Your task to perform on an android device: Clear the cart on amazon. Search for "asus rog" on amazon, select the first entry, and add it to the cart. Image 0: 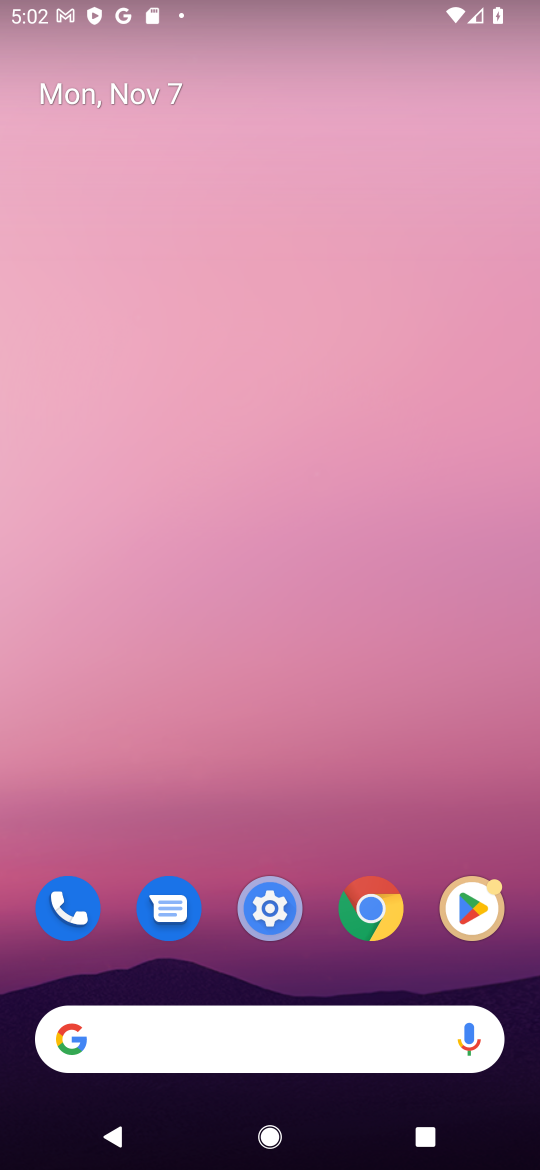
Step 0: click (379, 1038)
Your task to perform on an android device: Clear the cart on amazon. Search for "asus rog" on amazon, select the first entry, and add it to the cart. Image 1: 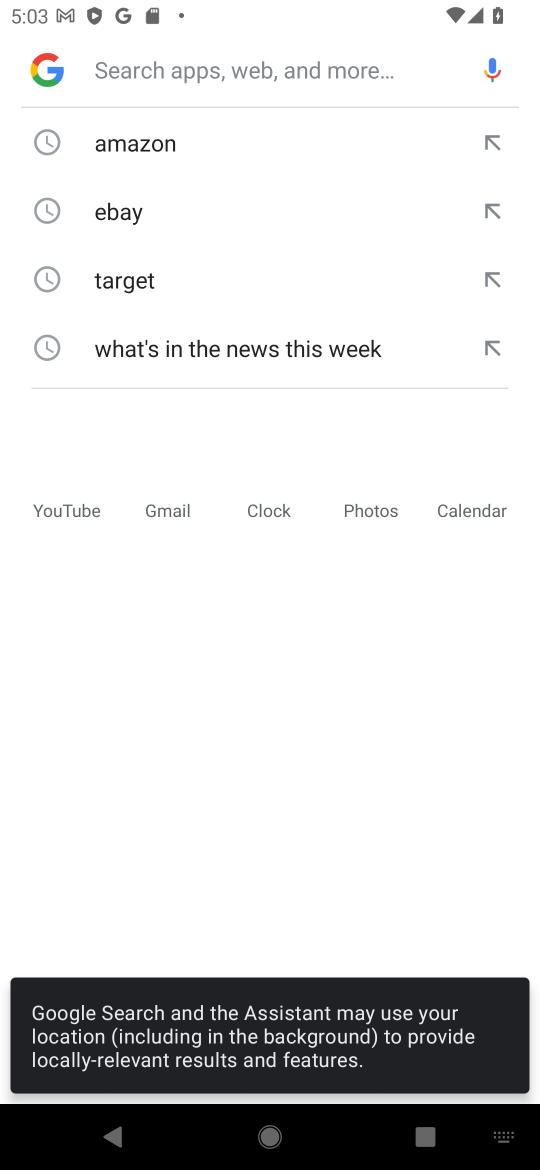
Step 1: click (196, 154)
Your task to perform on an android device: Clear the cart on amazon. Search for "asus rog" on amazon, select the first entry, and add it to the cart. Image 2: 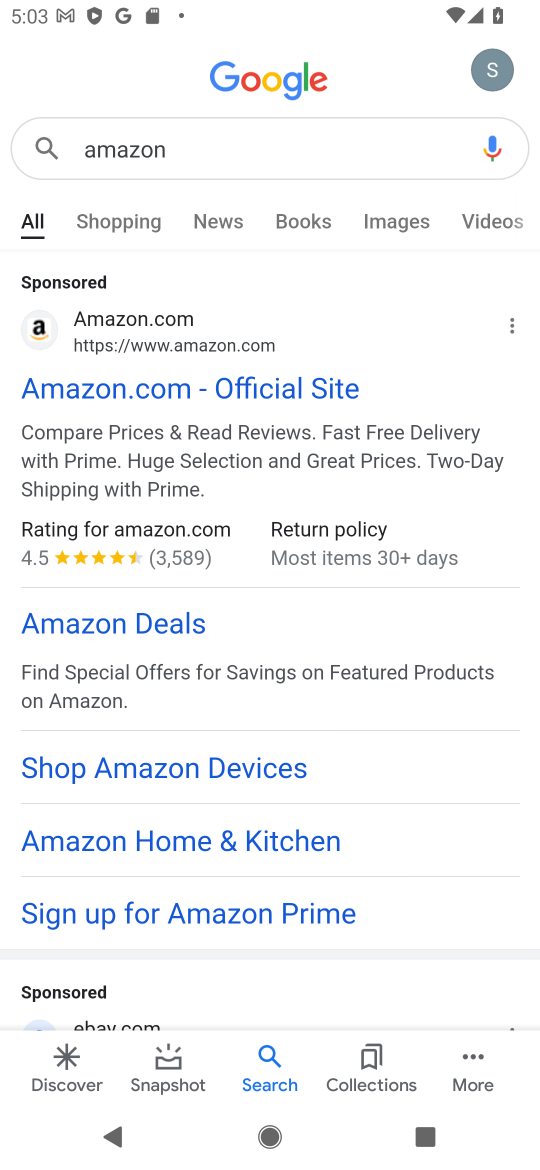
Step 2: click (235, 414)
Your task to perform on an android device: Clear the cart on amazon. Search for "asus rog" on amazon, select the first entry, and add it to the cart. Image 3: 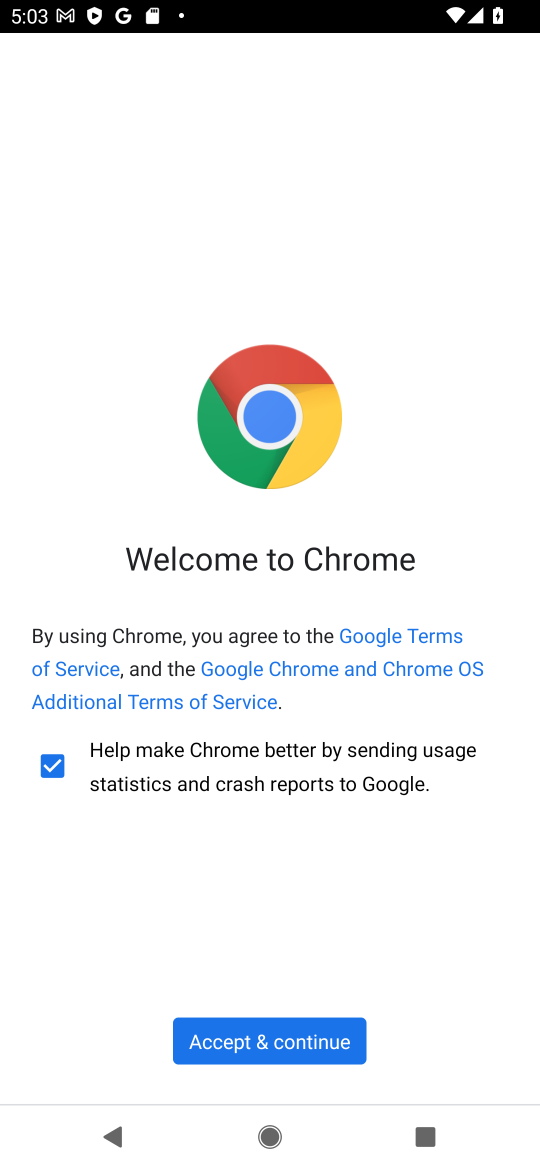
Step 3: click (252, 1049)
Your task to perform on an android device: Clear the cart on amazon. Search for "asus rog" on amazon, select the first entry, and add it to the cart. Image 4: 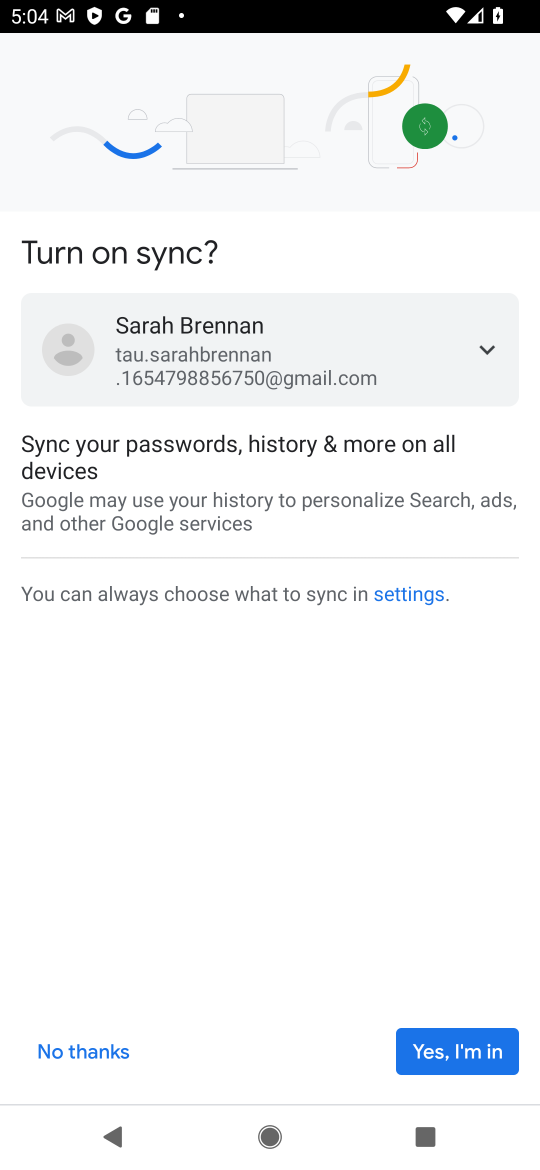
Step 4: click (430, 1052)
Your task to perform on an android device: Clear the cart on amazon. Search for "asus rog" on amazon, select the first entry, and add it to the cart. Image 5: 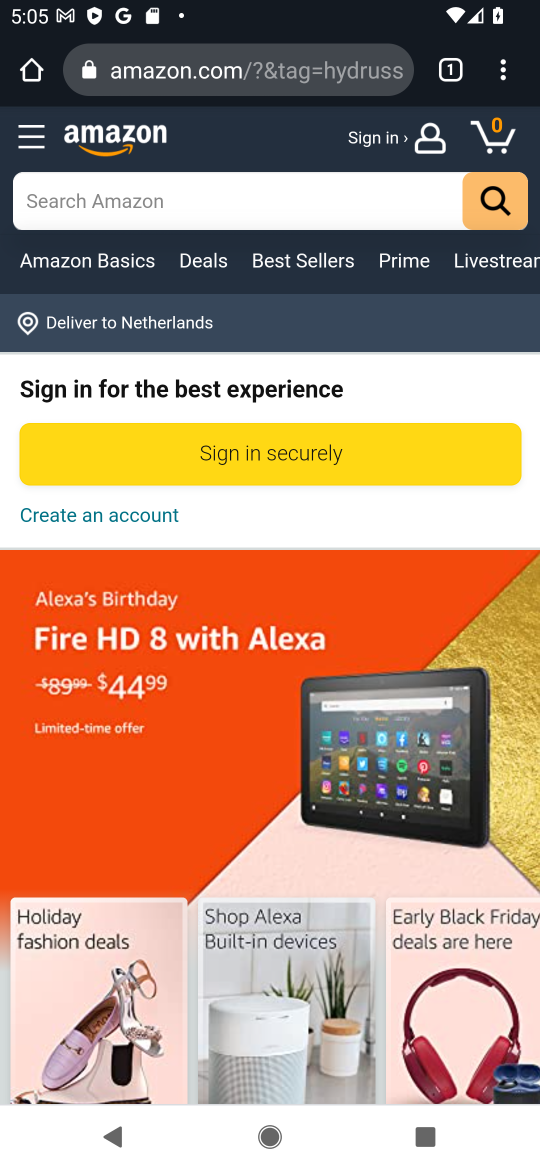
Step 5: task complete